Your task to perform on an android device: turn on the 12-hour format for clock Image 0: 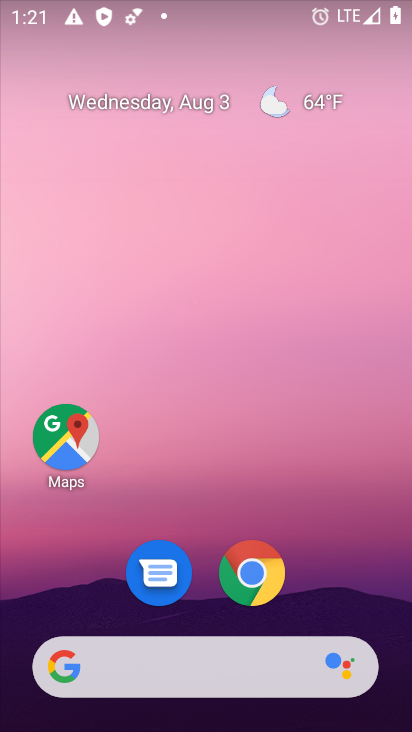
Step 0: drag from (214, 661) to (259, 86)
Your task to perform on an android device: turn on the 12-hour format for clock Image 1: 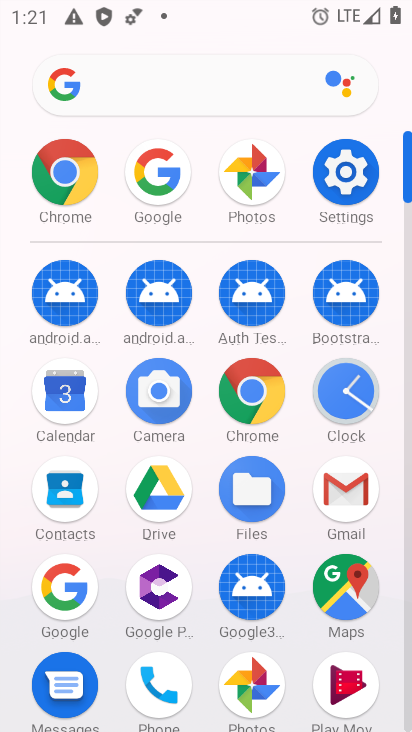
Step 1: drag from (262, 501) to (290, 0)
Your task to perform on an android device: turn on the 12-hour format for clock Image 2: 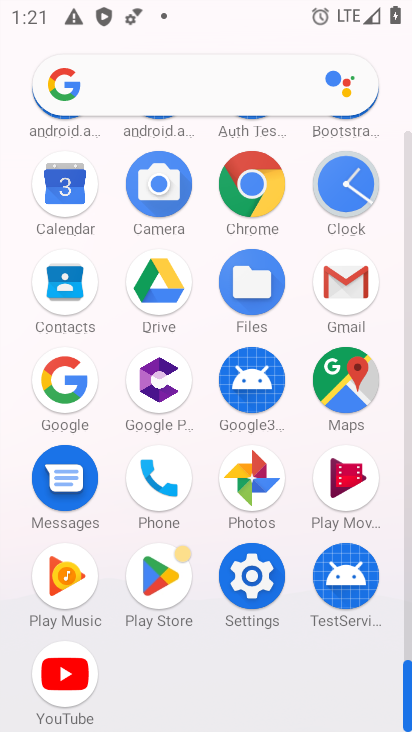
Step 2: click (357, 194)
Your task to perform on an android device: turn on the 12-hour format for clock Image 3: 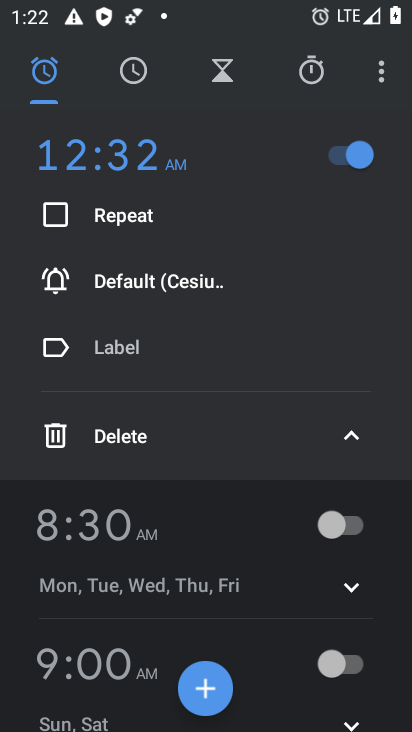
Step 3: click (369, 82)
Your task to perform on an android device: turn on the 12-hour format for clock Image 4: 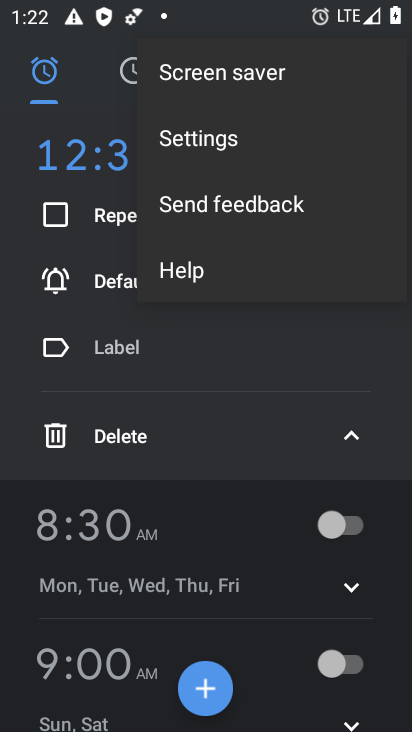
Step 4: click (220, 150)
Your task to perform on an android device: turn on the 12-hour format for clock Image 5: 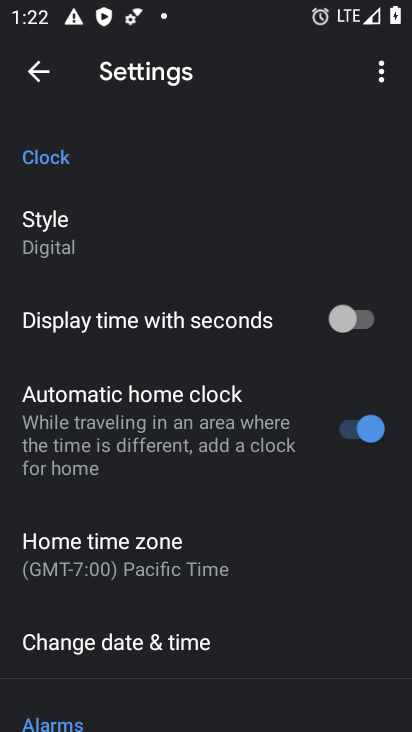
Step 5: drag from (167, 644) to (143, 290)
Your task to perform on an android device: turn on the 12-hour format for clock Image 6: 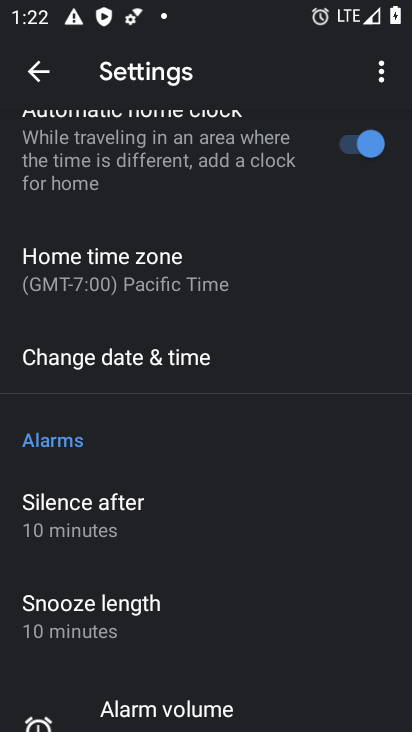
Step 6: click (107, 358)
Your task to perform on an android device: turn on the 12-hour format for clock Image 7: 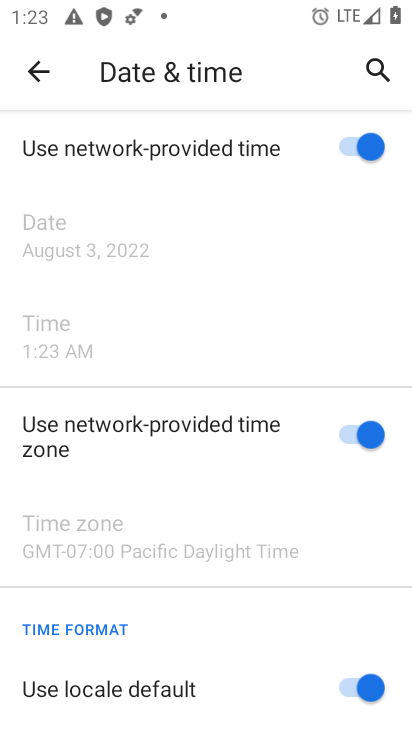
Step 7: task complete